Your task to perform on an android device: turn smart compose on in the gmail app Image 0: 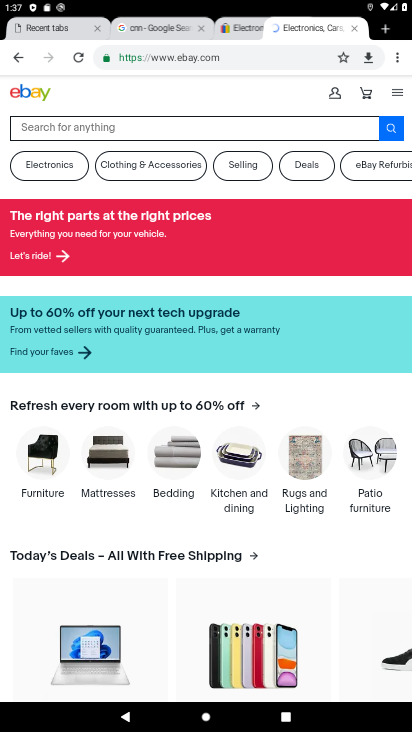
Step 0: press back button
Your task to perform on an android device: turn smart compose on in the gmail app Image 1: 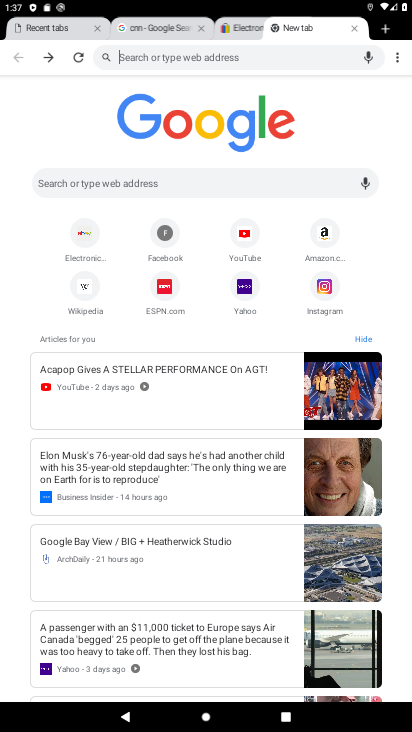
Step 1: press back button
Your task to perform on an android device: turn smart compose on in the gmail app Image 2: 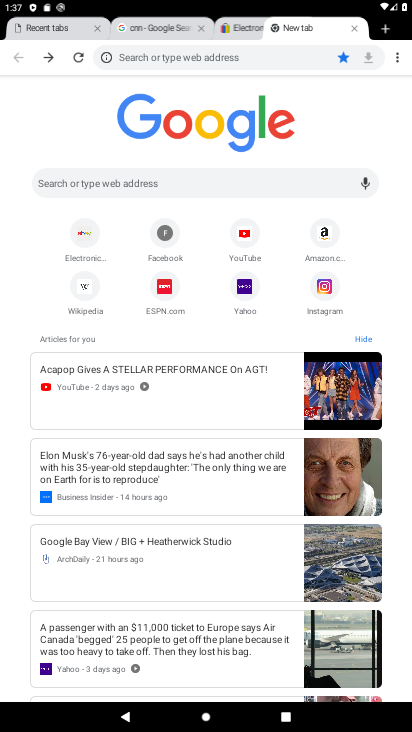
Step 2: press back button
Your task to perform on an android device: turn smart compose on in the gmail app Image 3: 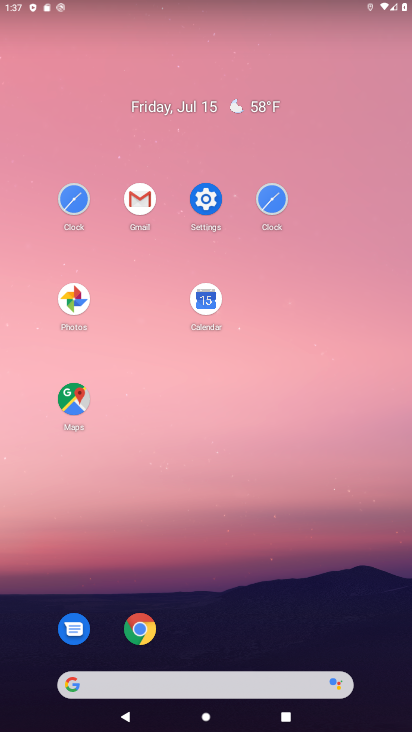
Step 3: click (136, 205)
Your task to perform on an android device: turn smart compose on in the gmail app Image 4: 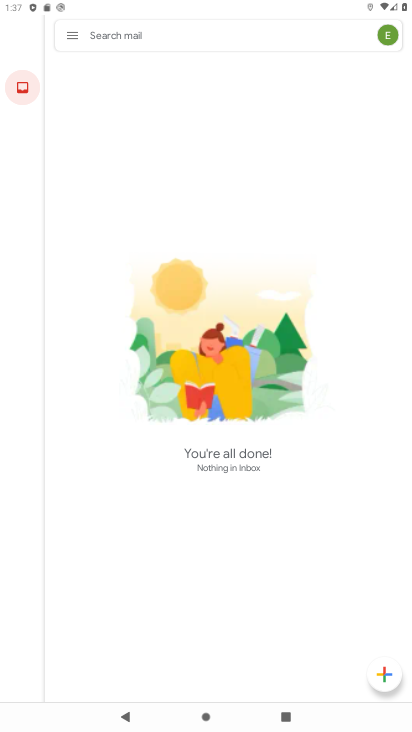
Step 4: click (66, 43)
Your task to perform on an android device: turn smart compose on in the gmail app Image 5: 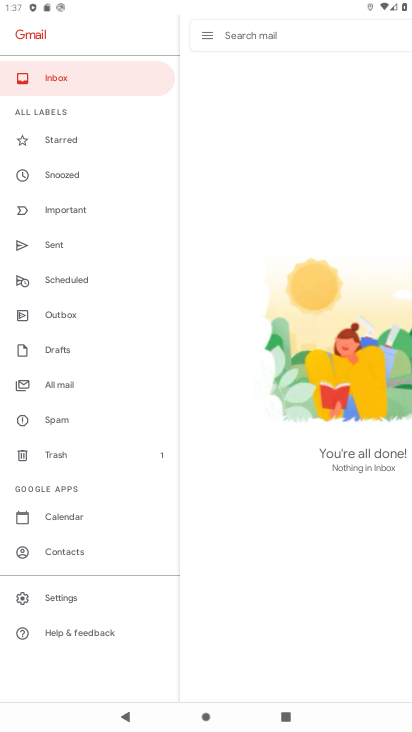
Step 5: click (59, 594)
Your task to perform on an android device: turn smart compose on in the gmail app Image 6: 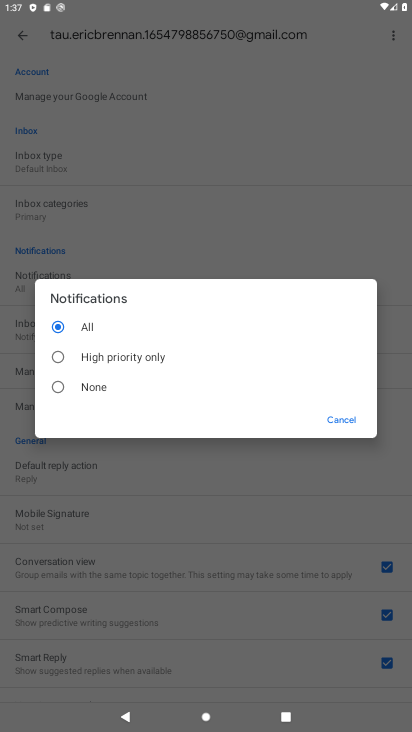
Step 6: click (347, 407)
Your task to perform on an android device: turn smart compose on in the gmail app Image 7: 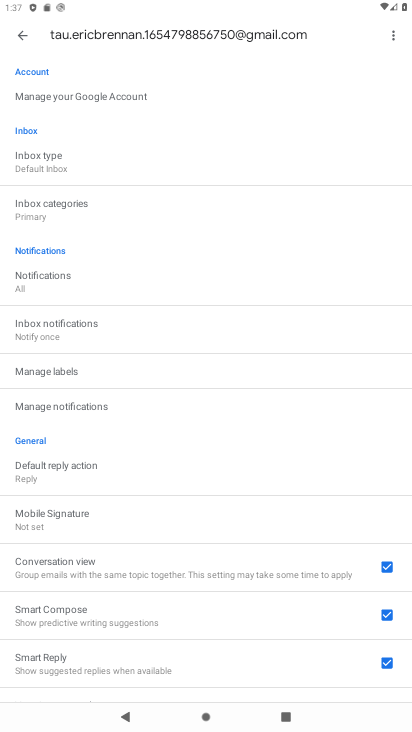
Step 7: task complete